Your task to perform on an android device: Open calendar and show me the fourth week of next month Image 0: 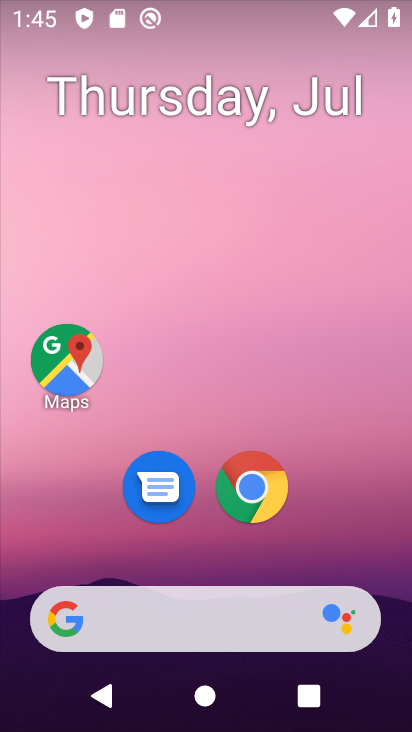
Step 0: drag from (374, 534) to (394, 133)
Your task to perform on an android device: Open calendar and show me the fourth week of next month Image 1: 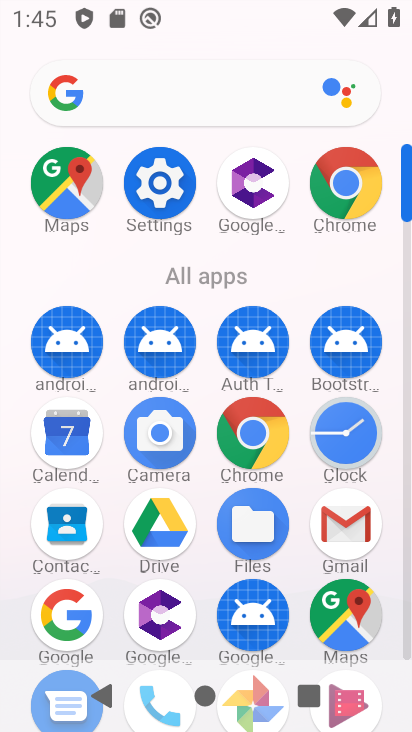
Step 1: click (81, 445)
Your task to perform on an android device: Open calendar and show me the fourth week of next month Image 2: 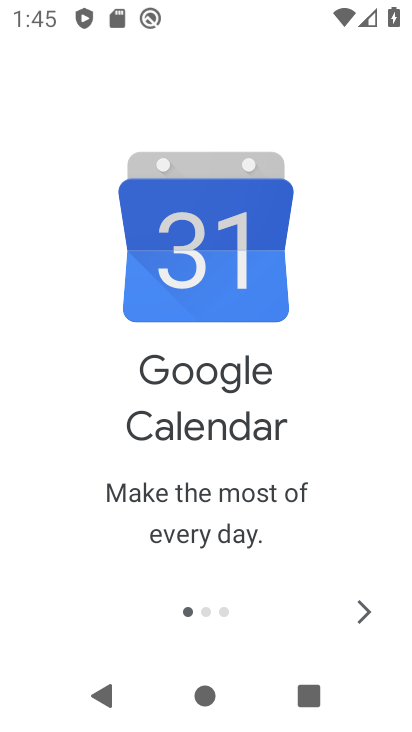
Step 2: click (357, 609)
Your task to perform on an android device: Open calendar and show me the fourth week of next month Image 3: 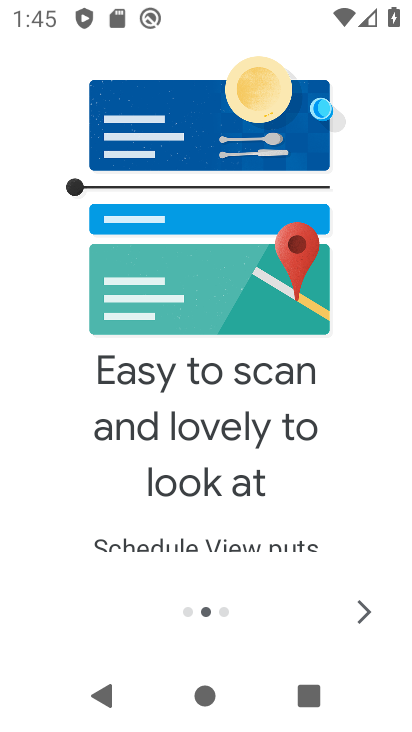
Step 3: click (357, 609)
Your task to perform on an android device: Open calendar and show me the fourth week of next month Image 4: 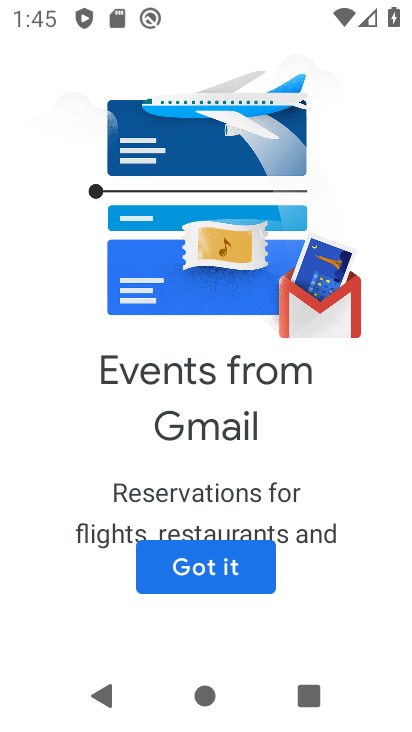
Step 4: click (241, 573)
Your task to perform on an android device: Open calendar and show me the fourth week of next month Image 5: 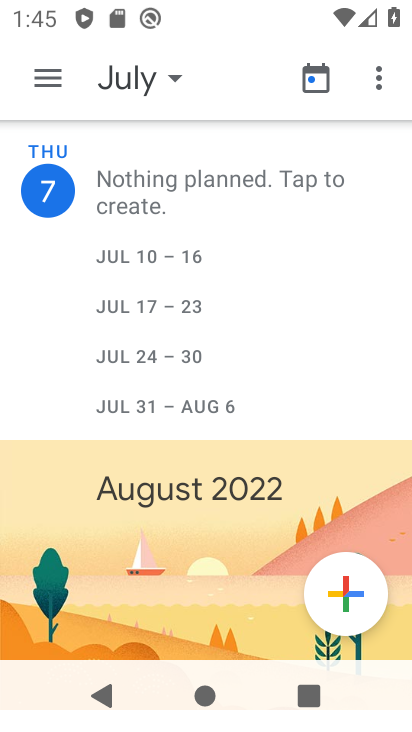
Step 5: click (170, 81)
Your task to perform on an android device: Open calendar and show me the fourth week of next month Image 6: 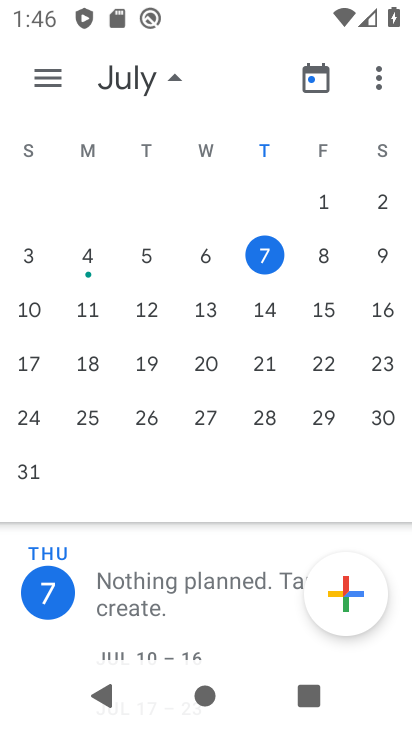
Step 6: drag from (377, 224) to (20, 206)
Your task to perform on an android device: Open calendar and show me the fourth week of next month Image 7: 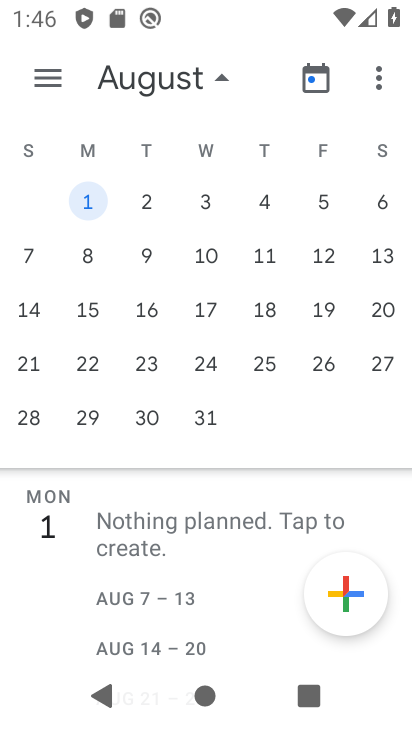
Step 7: click (94, 365)
Your task to perform on an android device: Open calendar and show me the fourth week of next month Image 8: 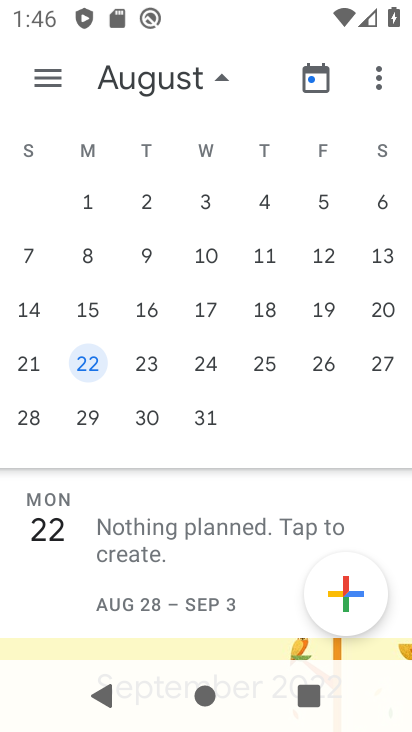
Step 8: task complete